Your task to perform on an android device: Open Maps and search for coffee Image 0: 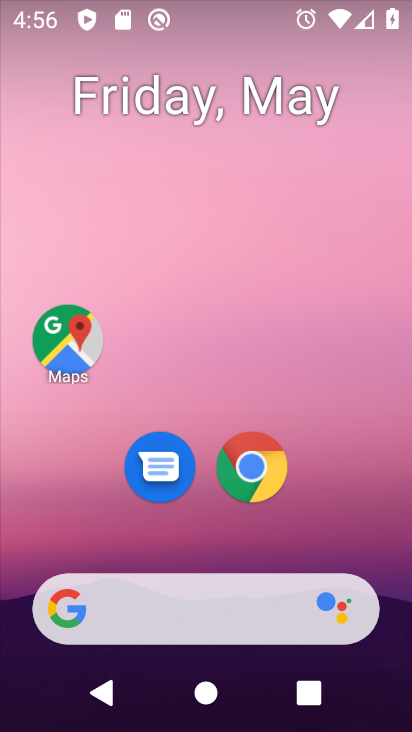
Step 0: click (64, 334)
Your task to perform on an android device: Open Maps and search for coffee Image 1: 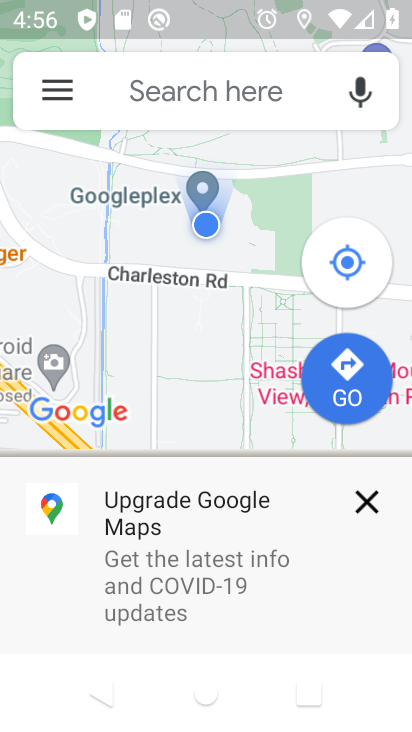
Step 1: click (210, 93)
Your task to perform on an android device: Open Maps and search for coffee Image 2: 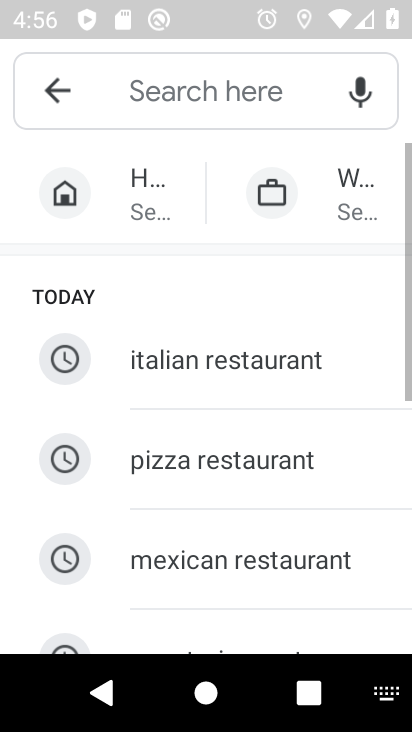
Step 2: drag from (220, 468) to (312, 162)
Your task to perform on an android device: Open Maps and search for coffee Image 3: 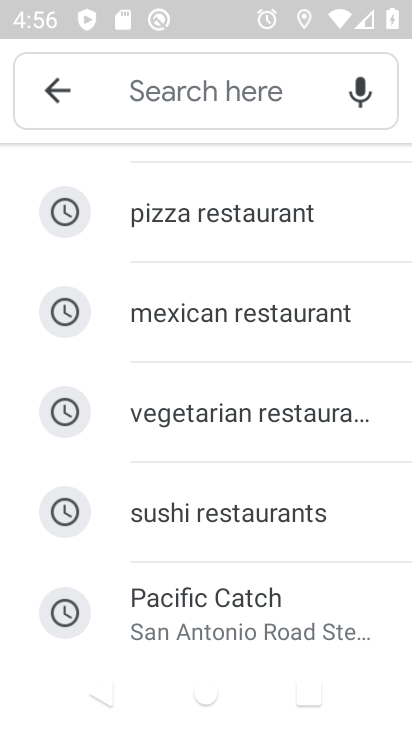
Step 3: click (246, 90)
Your task to perform on an android device: Open Maps and search for coffee Image 4: 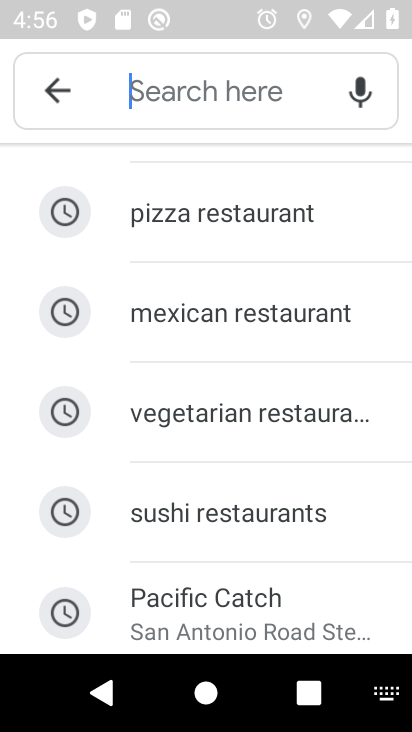
Step 4: type "coffee"
Your task to perform on an android device: Open Maps and search for coffee Image 5: 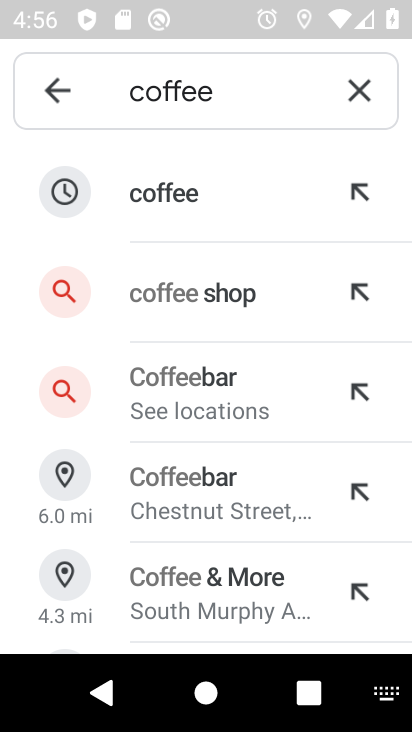
Step 5: click (194, 202)
Your task to perform on an android device: Open Maps and search for coffee Image 6: 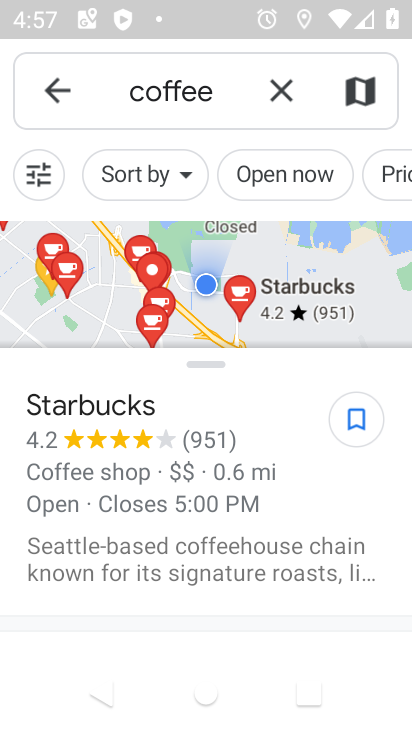
Step 6: task complete